Your task to perform on an android device: Show me popular games on the Play Store Image 0: 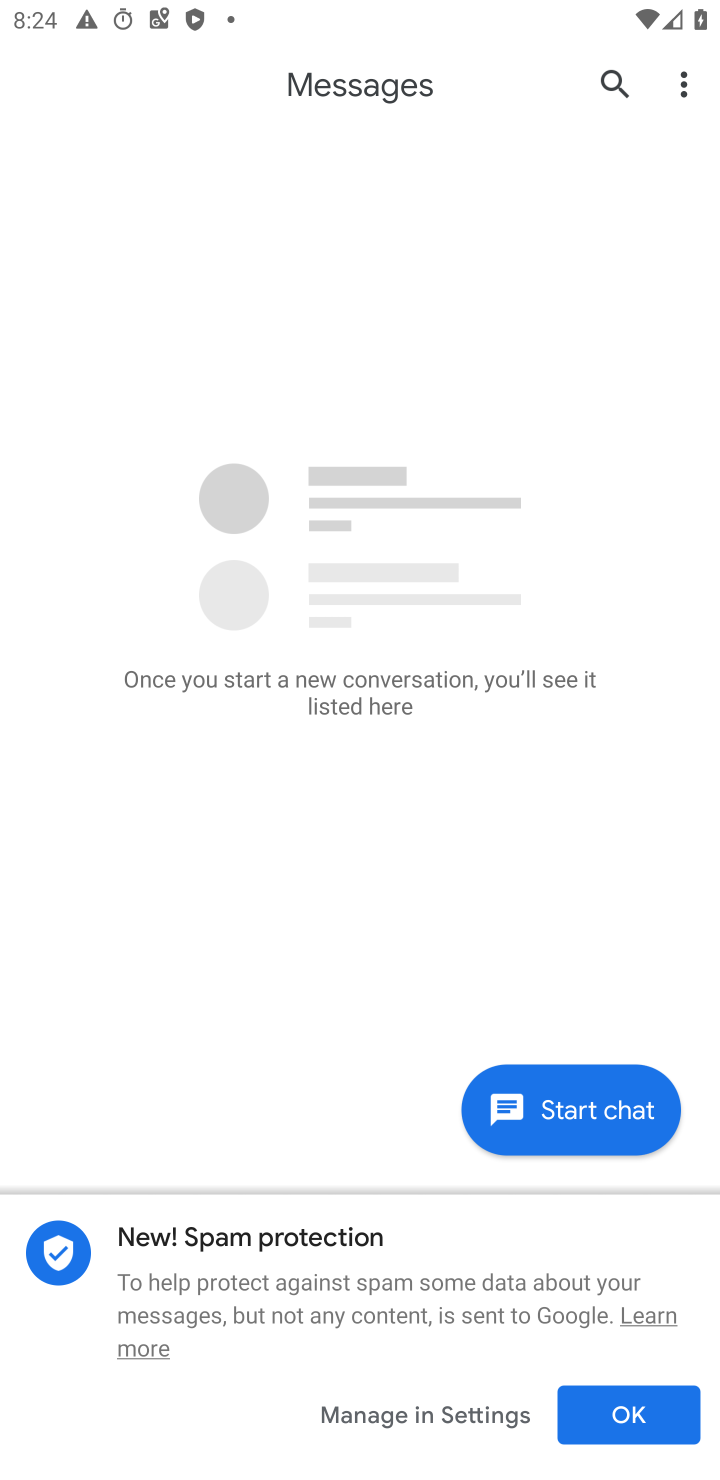
Step 0: press home button
Your task to perform on an android device: Show me popular games on the Play Store Image 1: 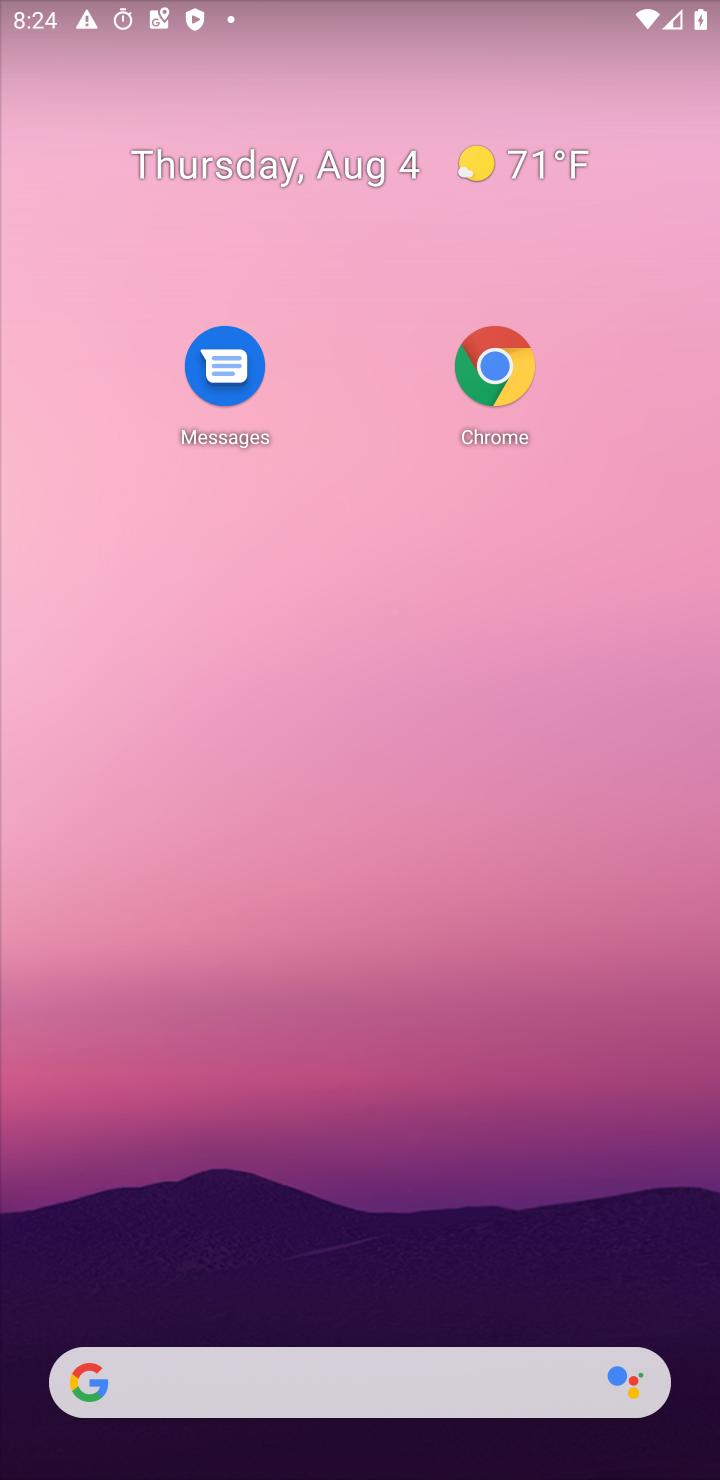
Step 1: drag from (421, 1013) to (472, 531)
Your task to perform on an android device: Show me popular games on the Play Store Image 2: 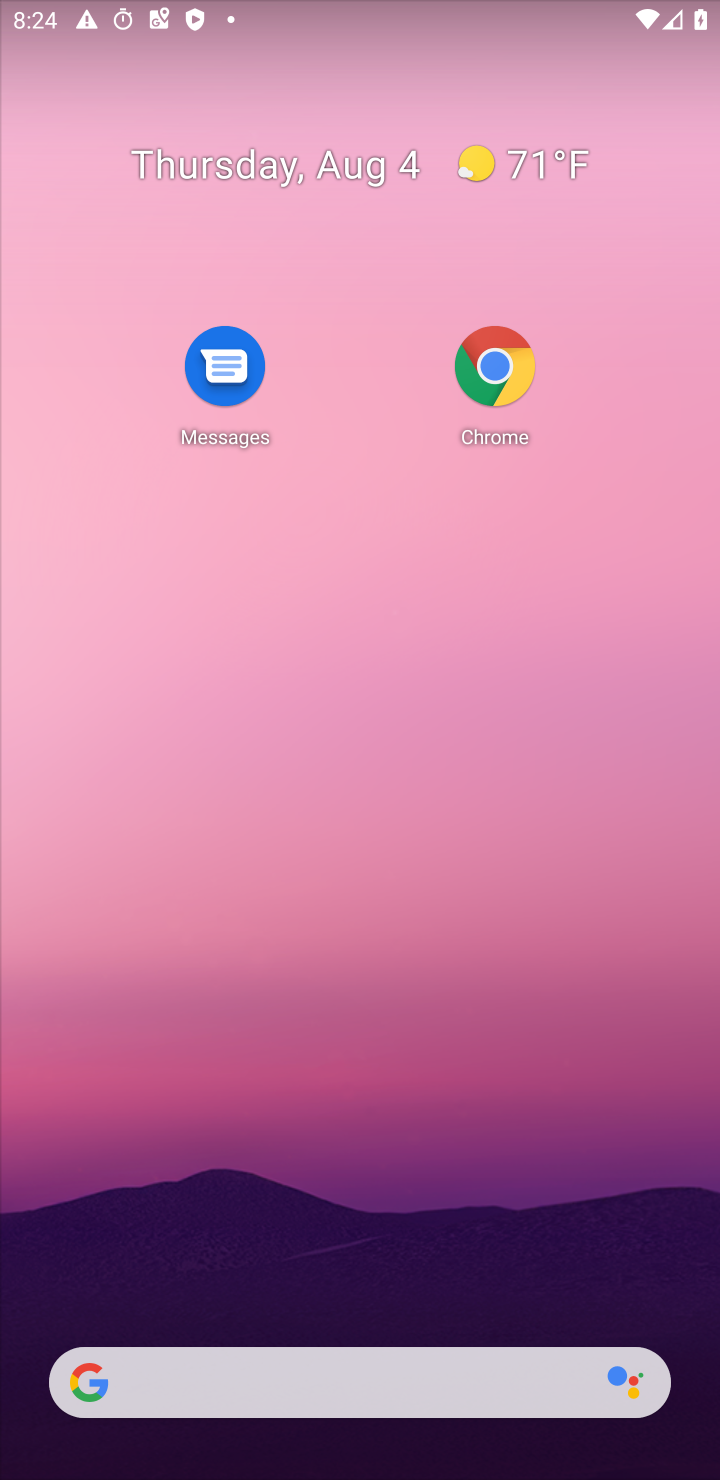
Step 2: drag from (446, 1413) to (367, 401)
Your task to perform on an android device: Show me popular games on the Play Store Image 3: 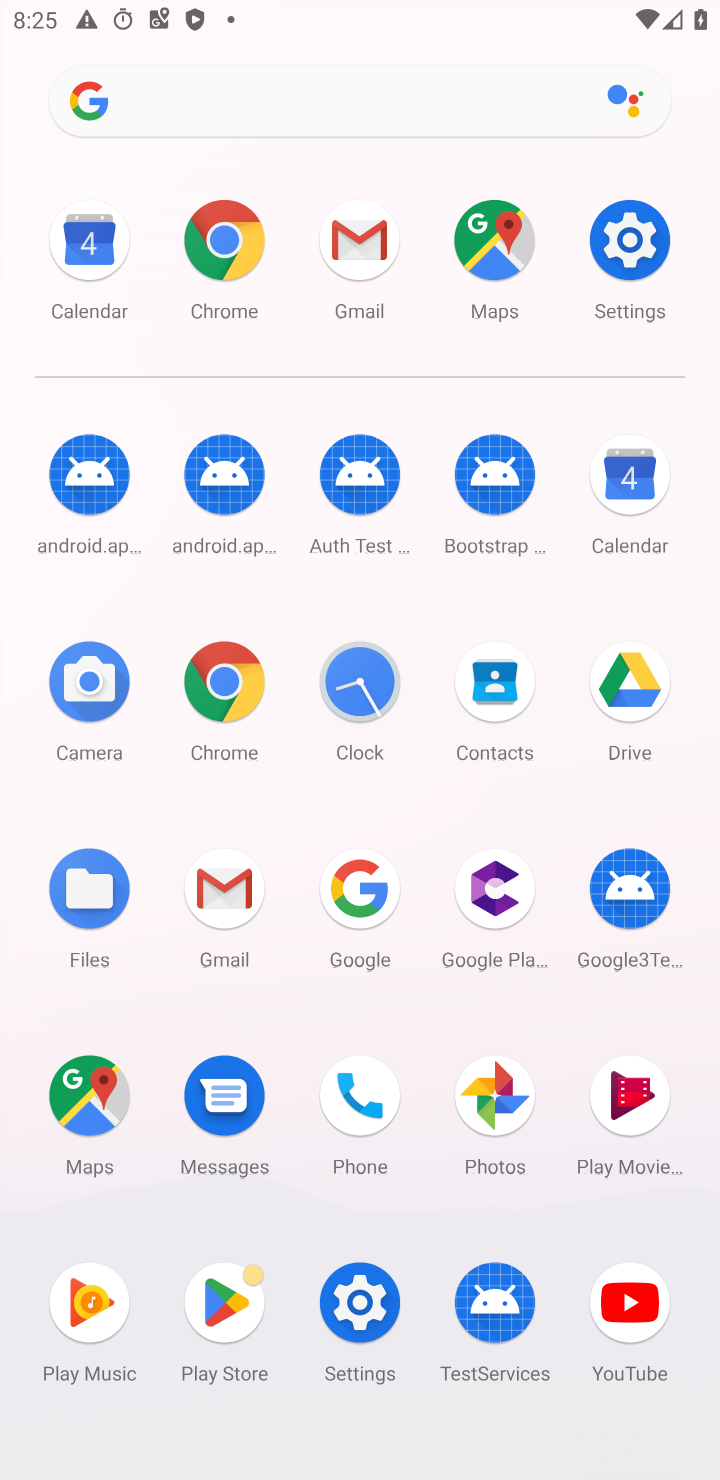
Step 3: click (246, 1295)
Your task to perform on an android device: Show me popular games on the Play Store Image 4: 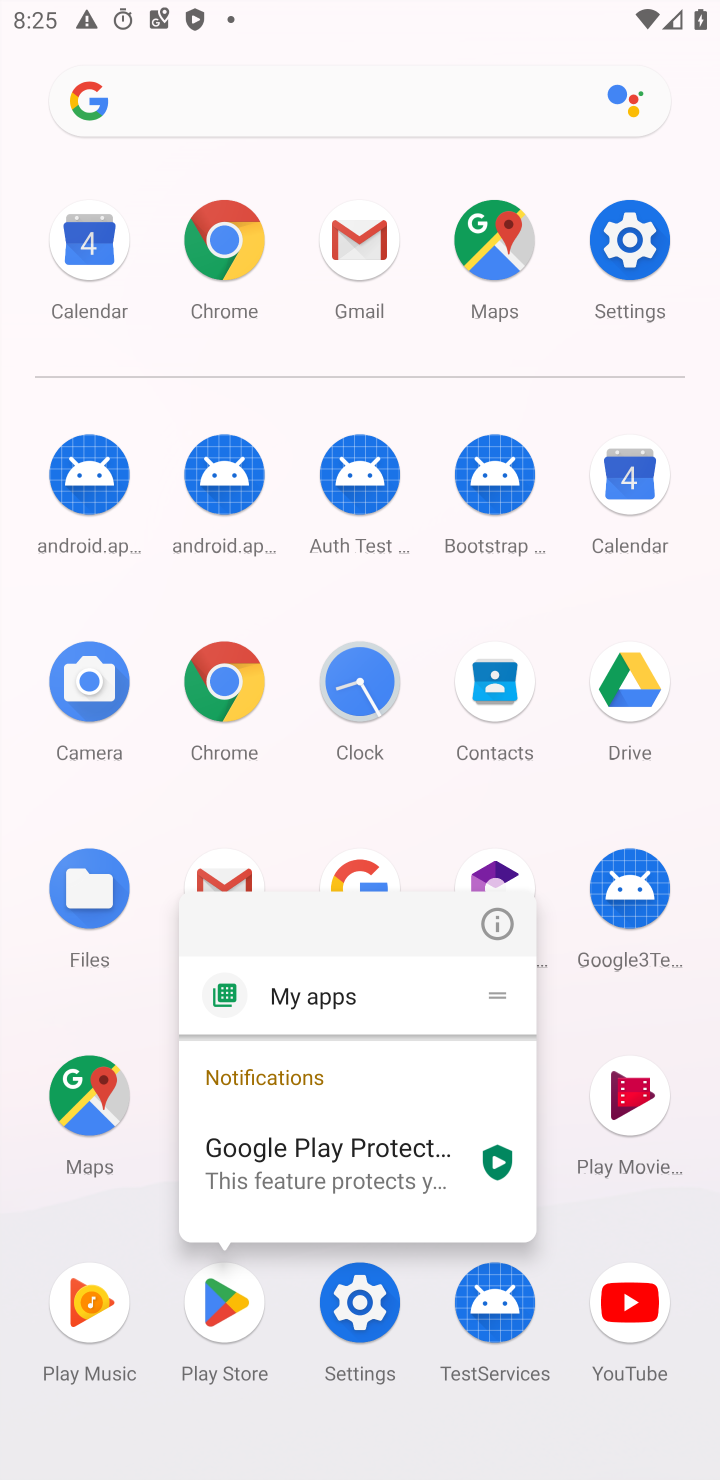
Step 4: click (251, 1304)
Your task to perform on an android device: Show me popular games on the Play Store Image 5: 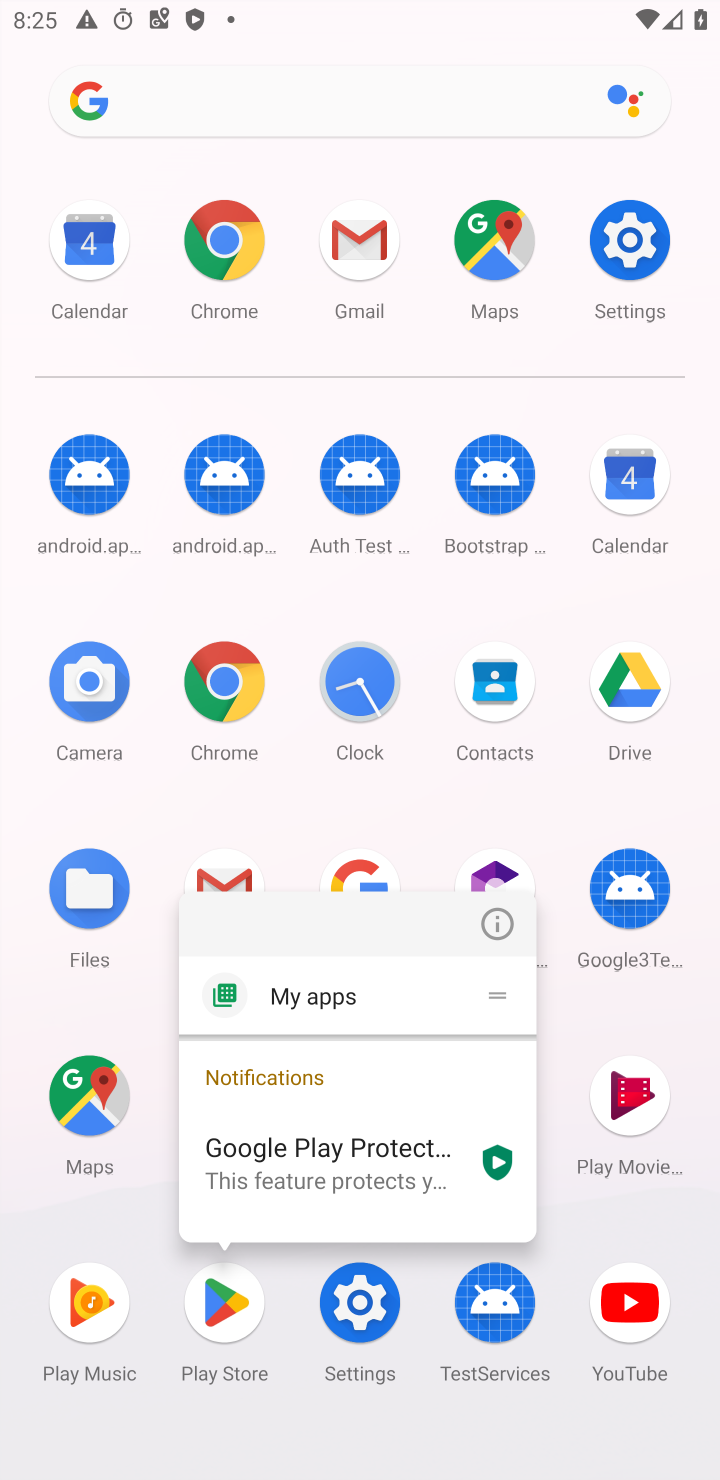
Step 5: click (244, 1300)
Your task to perform on an android device: Show me popular games on the Play Store Image 6: 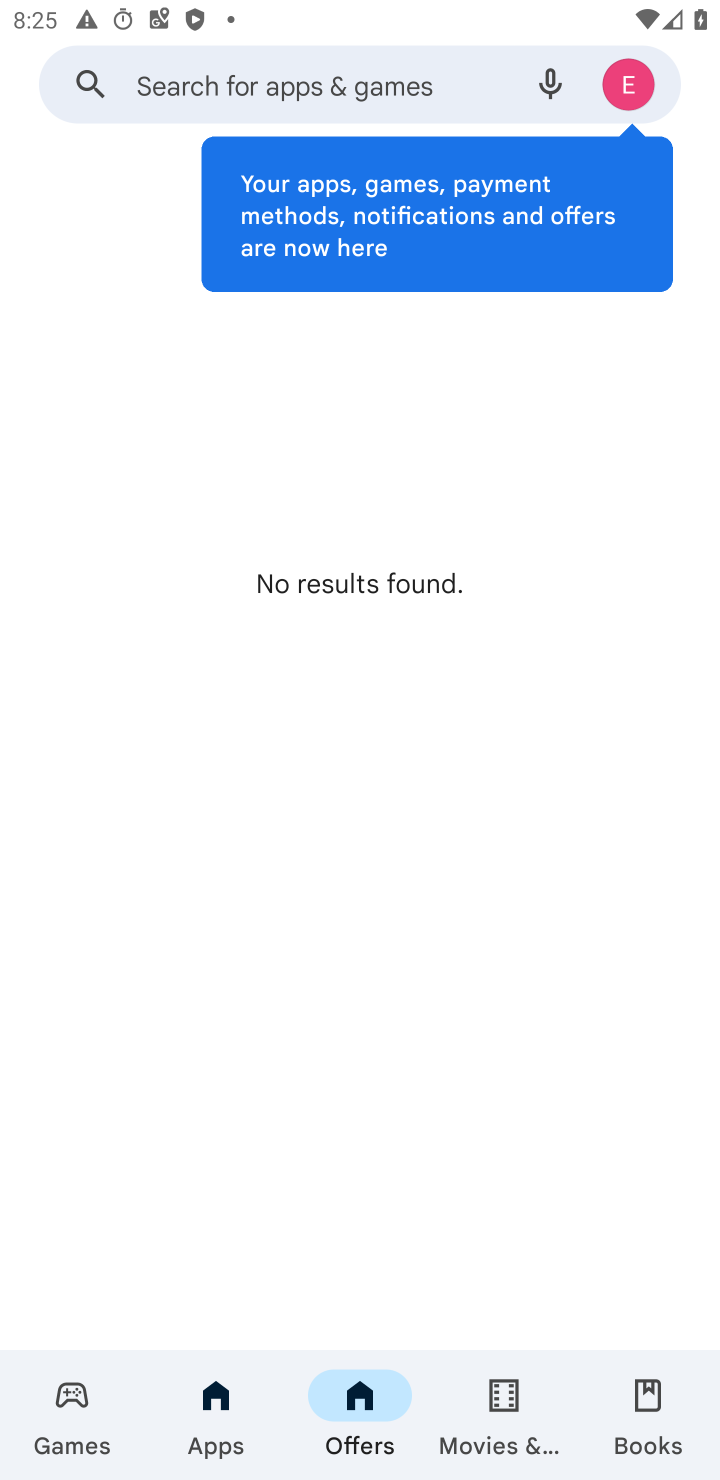
Step 6: click (365, 88)
Your task to perform on an android device: Show me popular games on the Play Store Image 7: 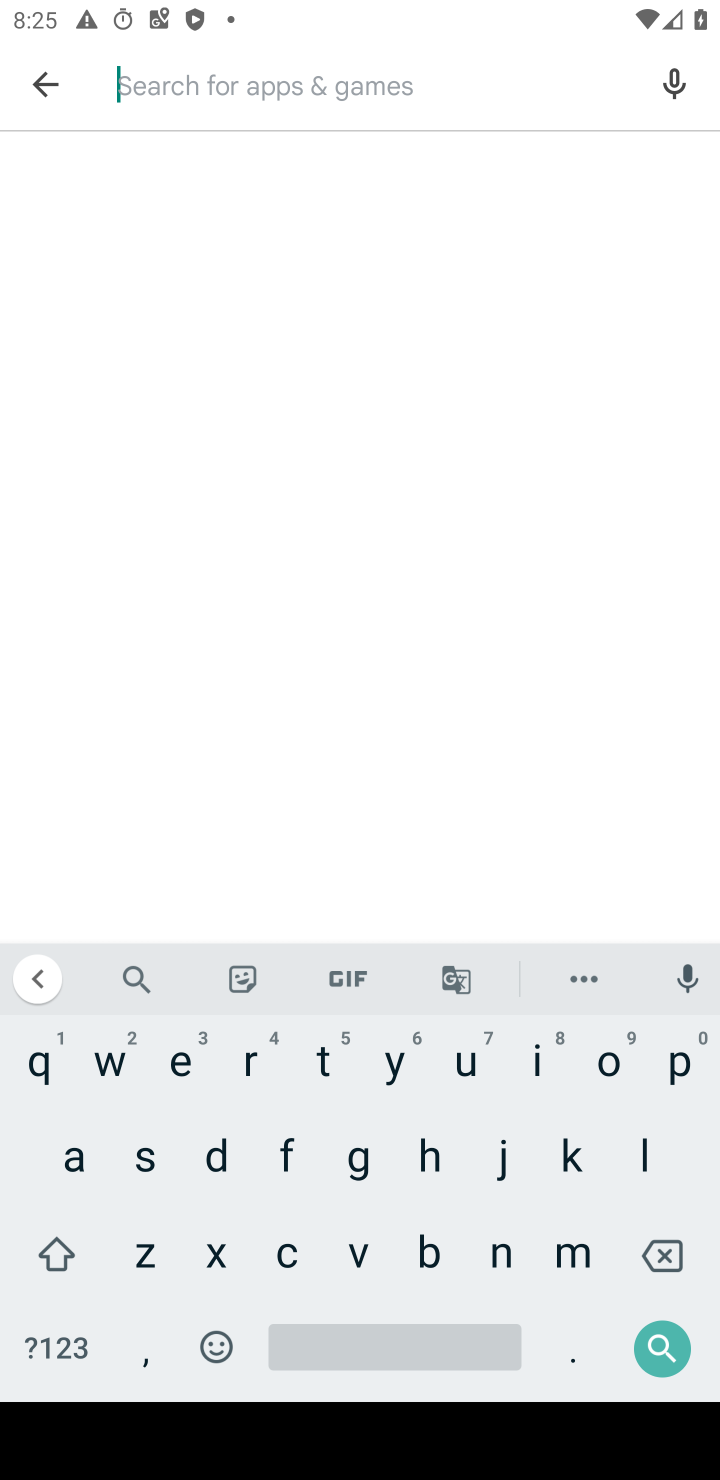
Step 7: click (673, 1058)
Your task to perform on an android device: Show me popular games on the Play Store Image 8: 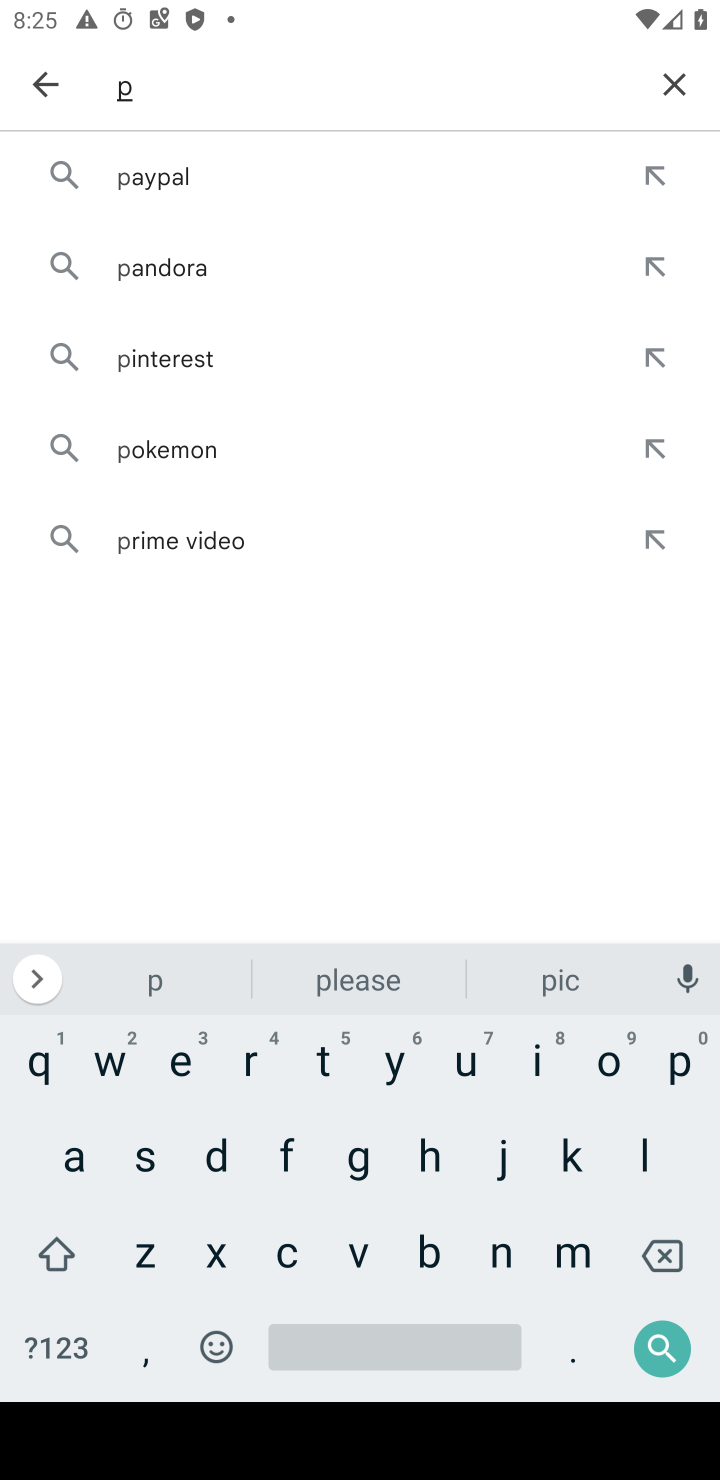
Step 8: click (617, 1070)
Your task to perform on an android device: Show me popular games on the Play Store Image 9: 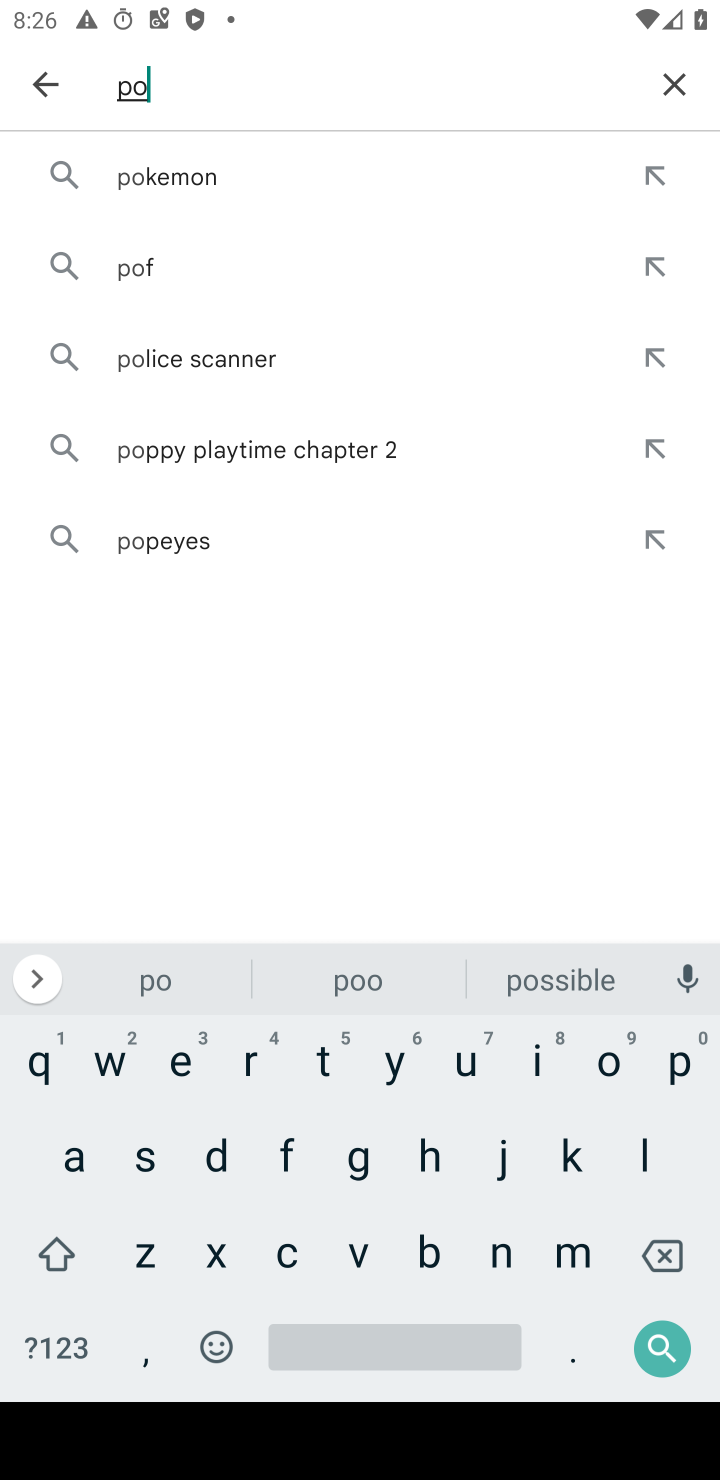
Step 9: click (669, 1057)
Your task to perform on an android device: Show me popular games on the Play Store Image 10: 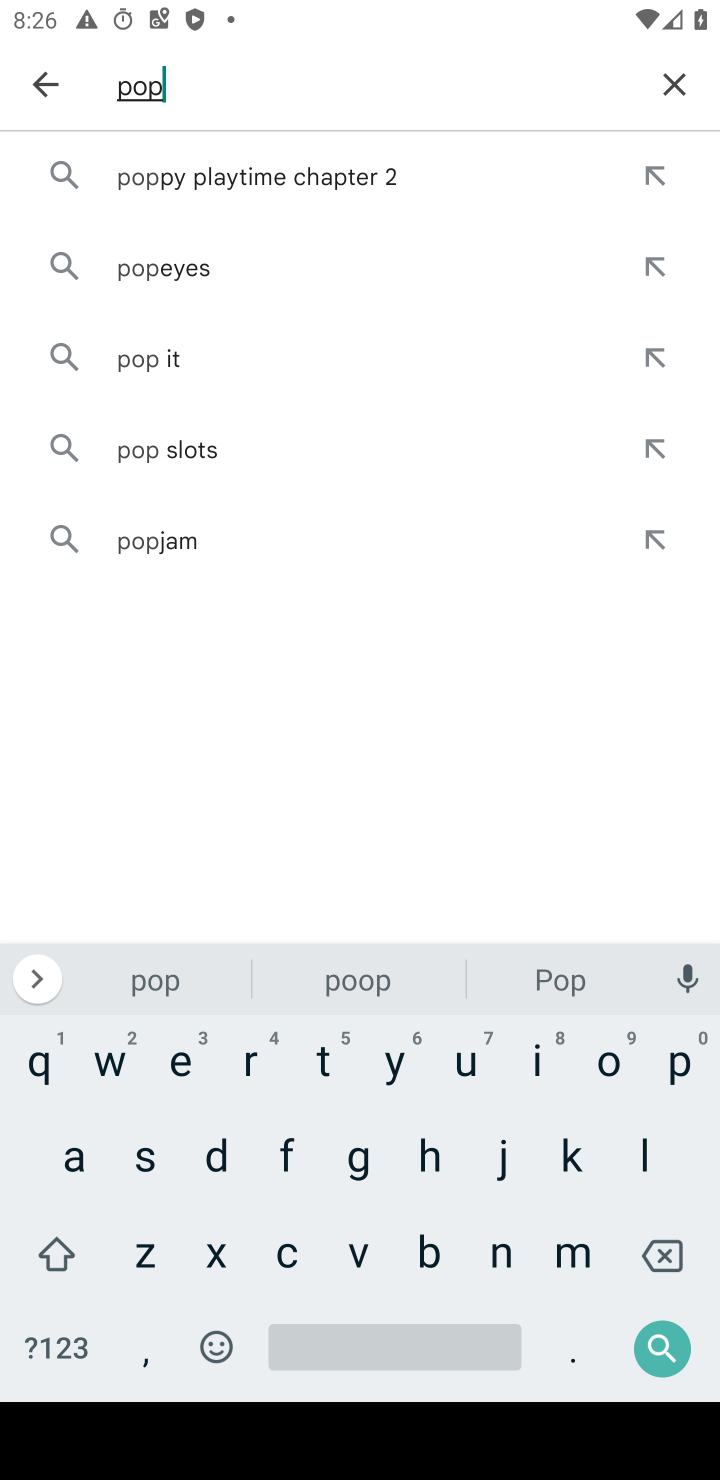
Step 10: click (451, 1053)
Your task to perform on an android device: Show me popular games on the Play Store Image 11: 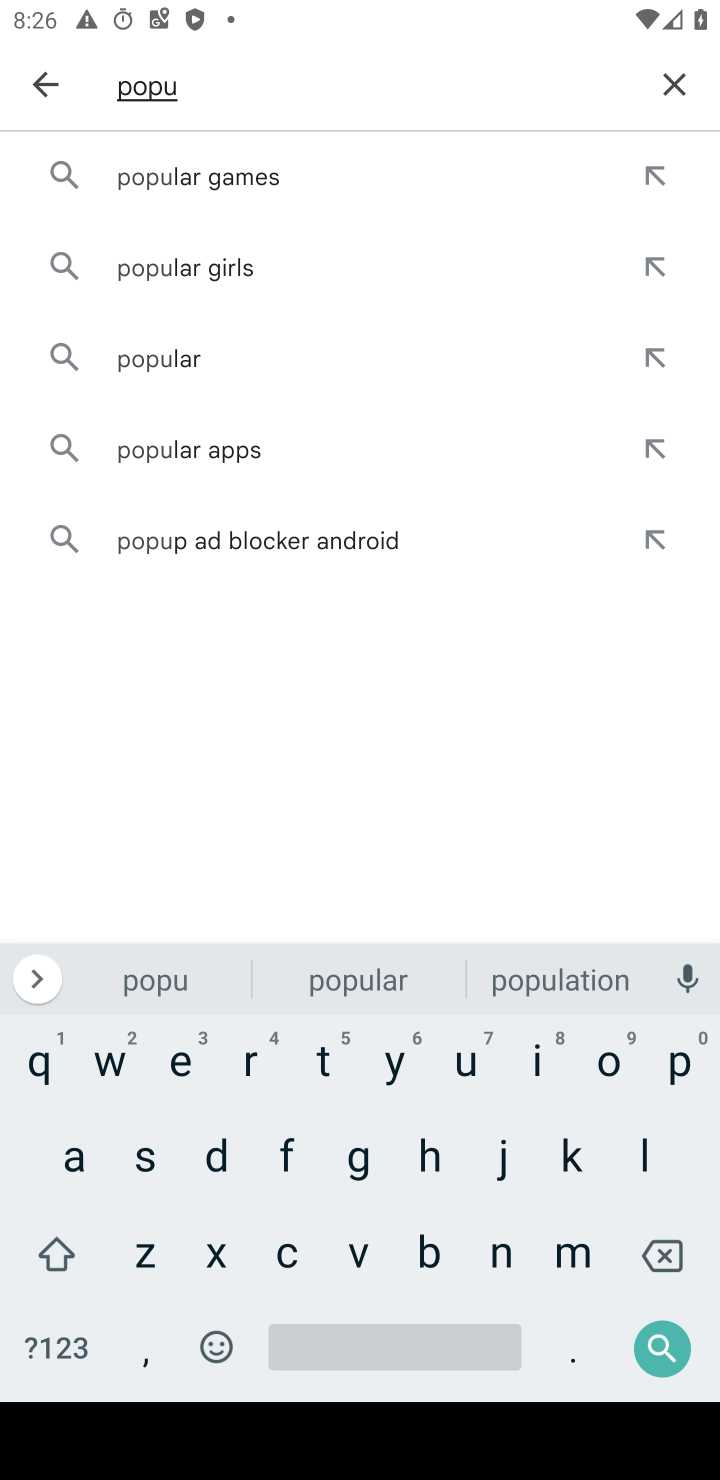
Step 11: click (383, 972)
Your task to perform on an android device: Show me popular games on the Play Store Image 12: 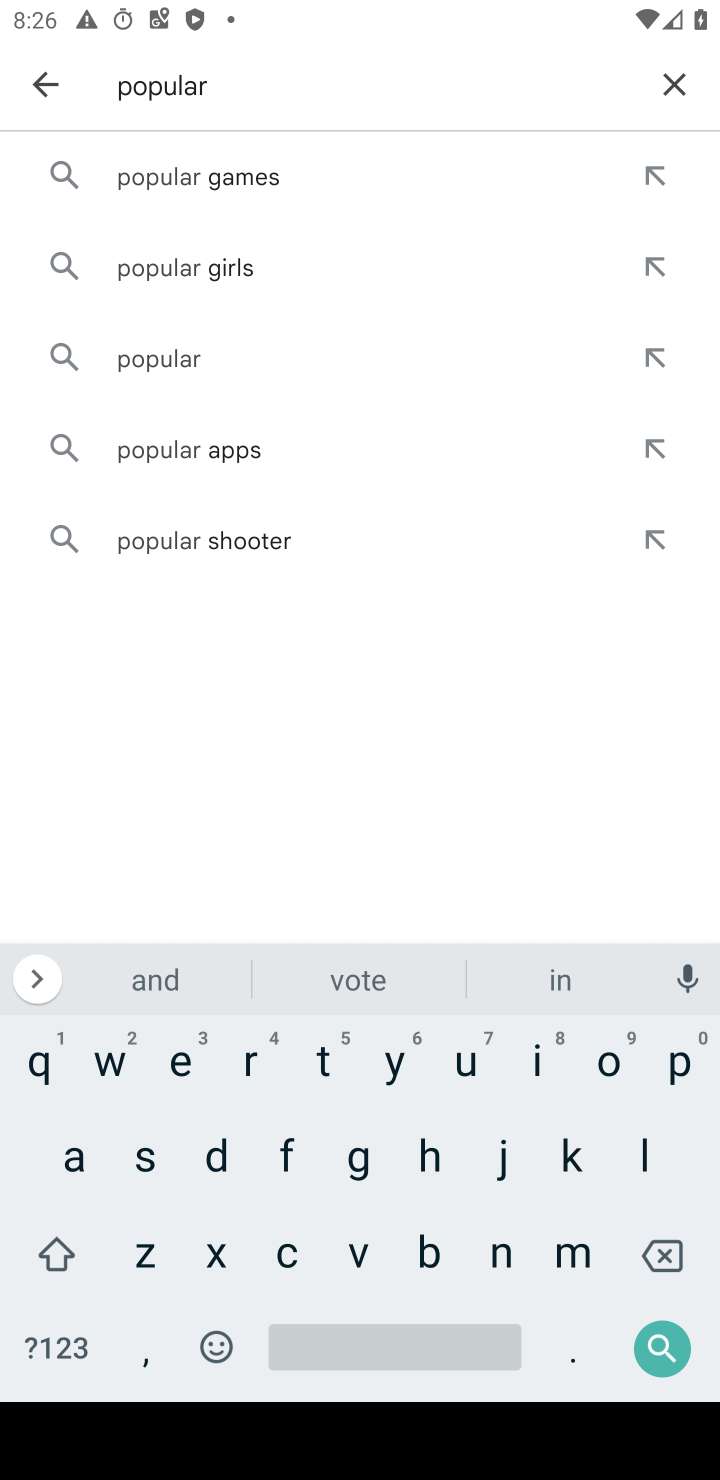
Step 12: click (245, 178)
Your task to perform on an android device: Show me popular games on the Play Store Image 13: 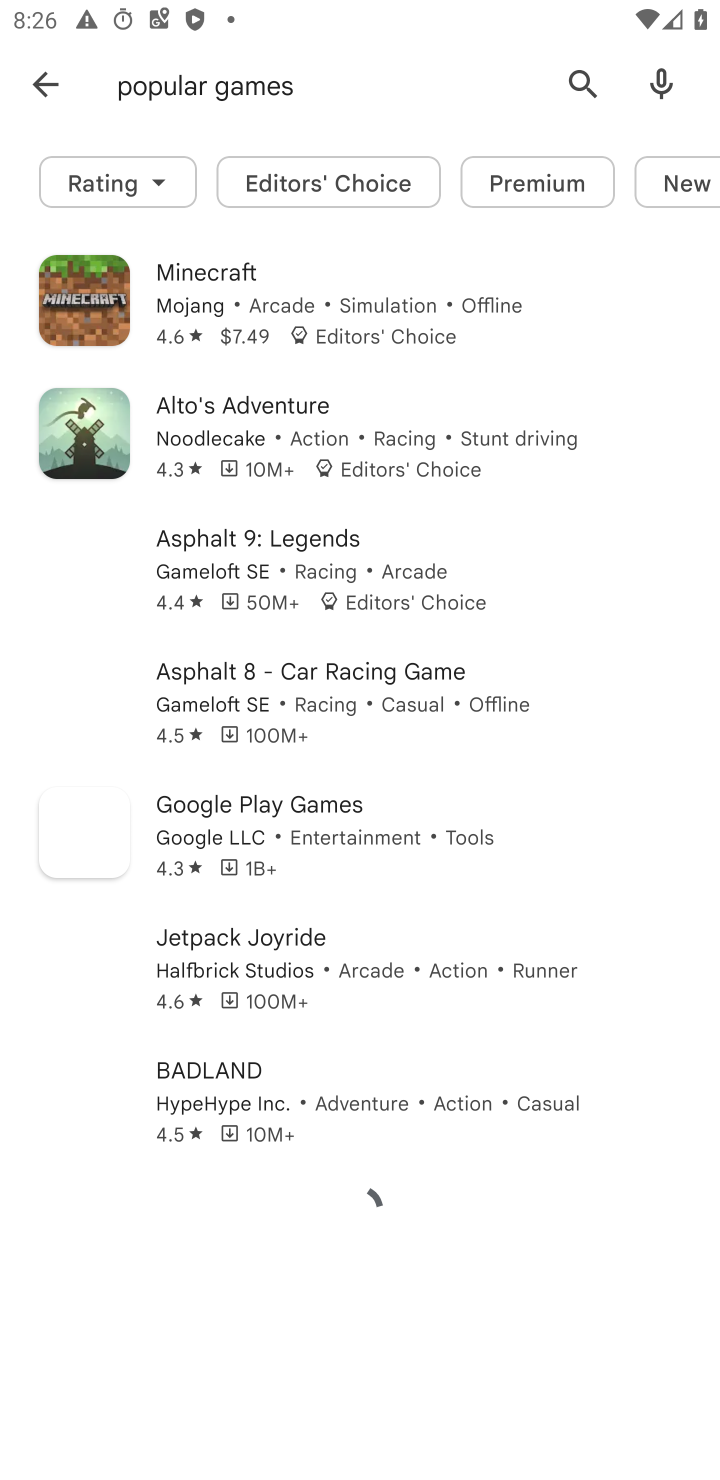
Step 13: task complete